Your task to perform on an android device: open app "Lyft - Rideshare, Bikes, Scooters & Transit" (install if not already installed) Image 0: 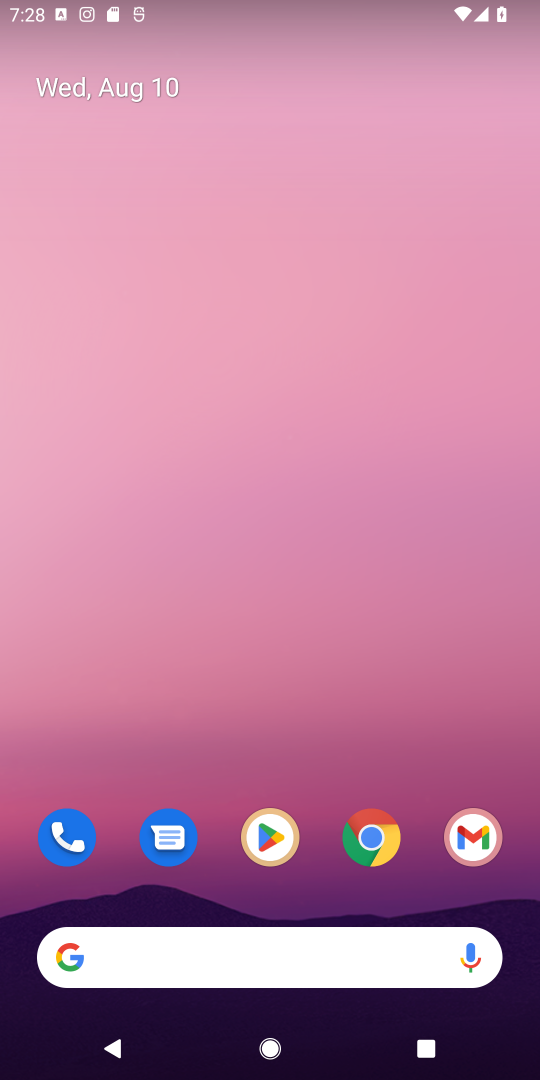
Step 0: press home button
Your task to perform on an android device: open app "Lyft - Rideshare, Bikes, Scooters & Transit" (install if not already installed) Image 1: 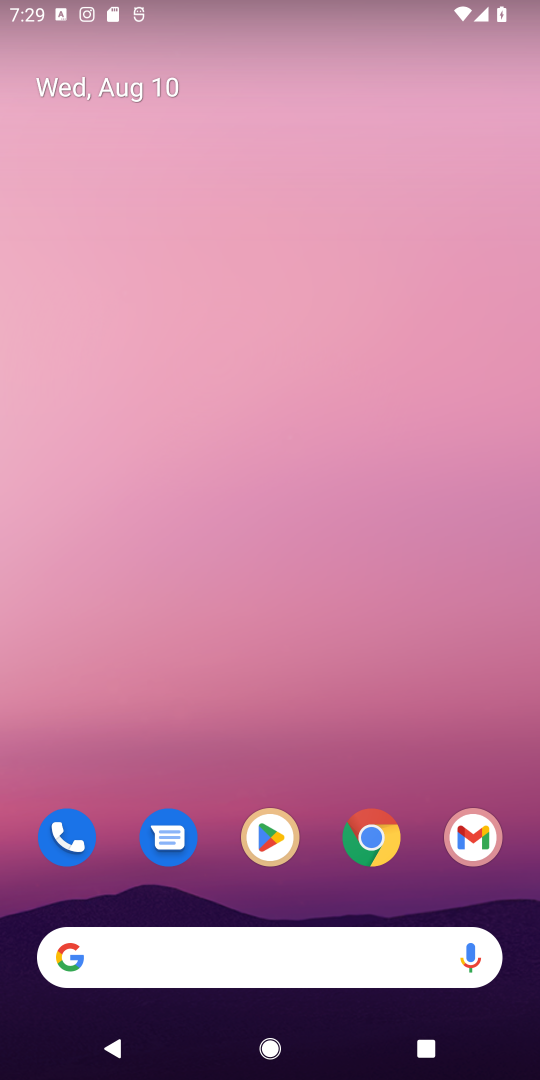
Step 1: click (270, 841)
Your task to perform on an android device: open app "Lyft - Rideshare, Bikes, Scooters & Transit" (install if not already installed) Image 2: 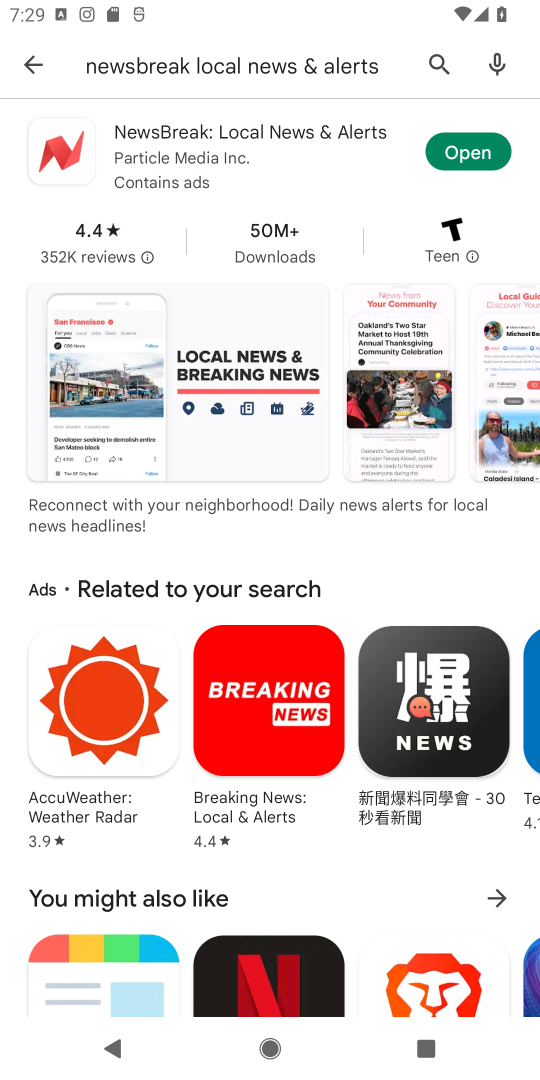
Step 2: click (432, 58)
Your task to perform on an android device: open app "Lyft - Rideshare, Bikes, Scooters & Transit" (install if not already installed) Image 3: 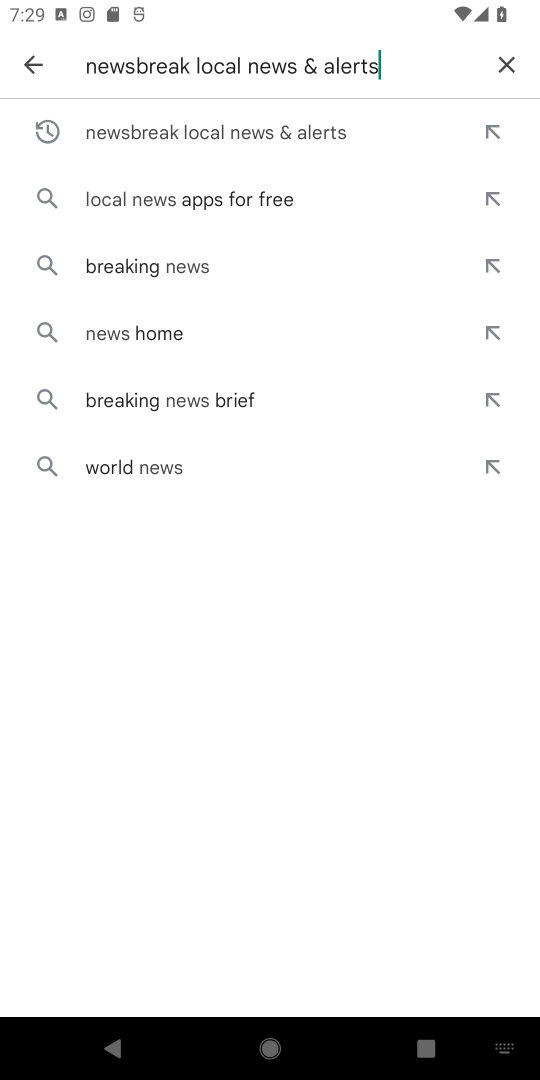
Step 3: click (500, 50)
Your task to perform on an android device: open app "Lyft - Rideshare, Bikes, Scooters & Transit" (install if not already installed) Image 4: 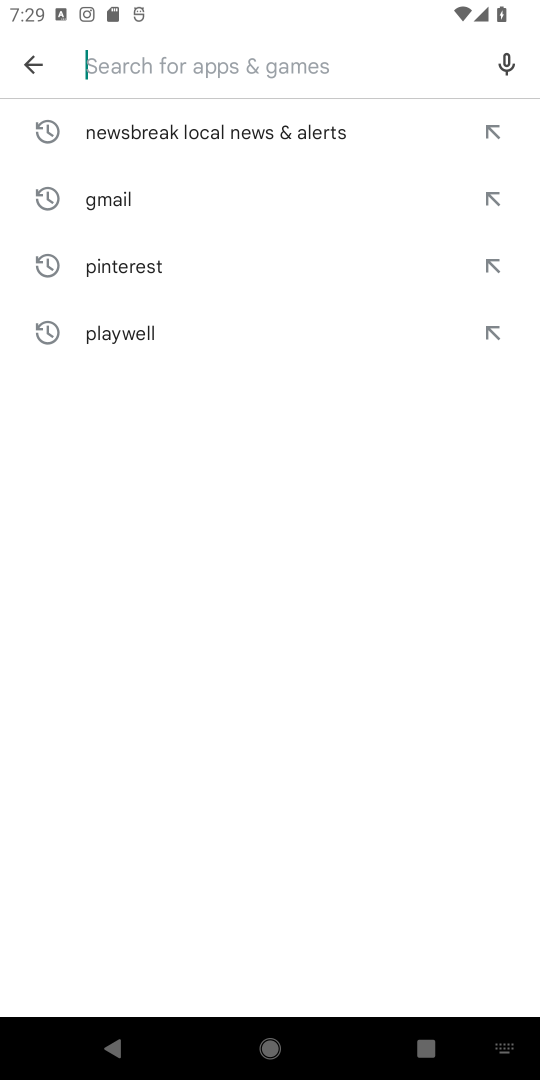
Step 4: type "Lyft - Rideshare, Bikes, Scooters & Transit"
Your task to perform on an android device: open app "Lyft - Rideshare, Bikes, Scooters & Transit" (install if not already installed) Image 5: 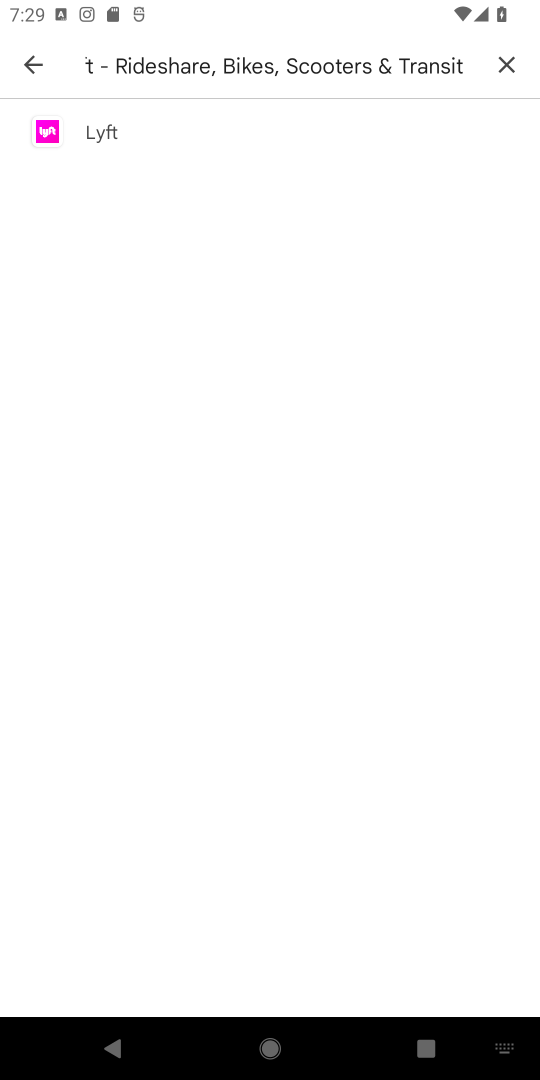
Step 5: click (123, 132)
Your task to perform on an android device: open app "Lyft - Rideshare, Bikes, Scooters & Transit" (install if not already installed) Image 6: 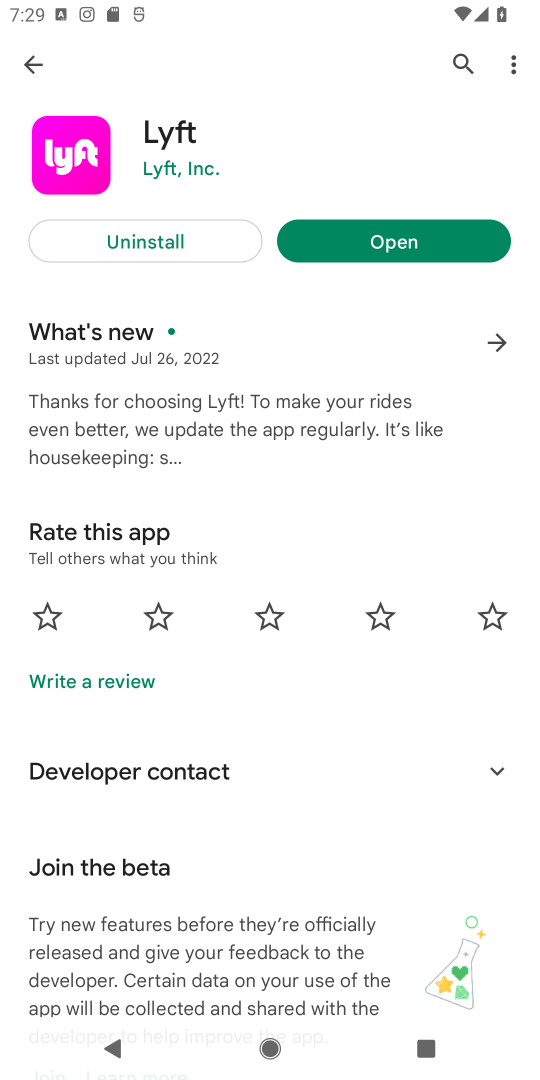
Step 6: click (427, 240)
Your task to perform on an android device: open app "Lyft - Rideshare, Bikes, Scooters & Transit" (install if not already installed) Image 7: 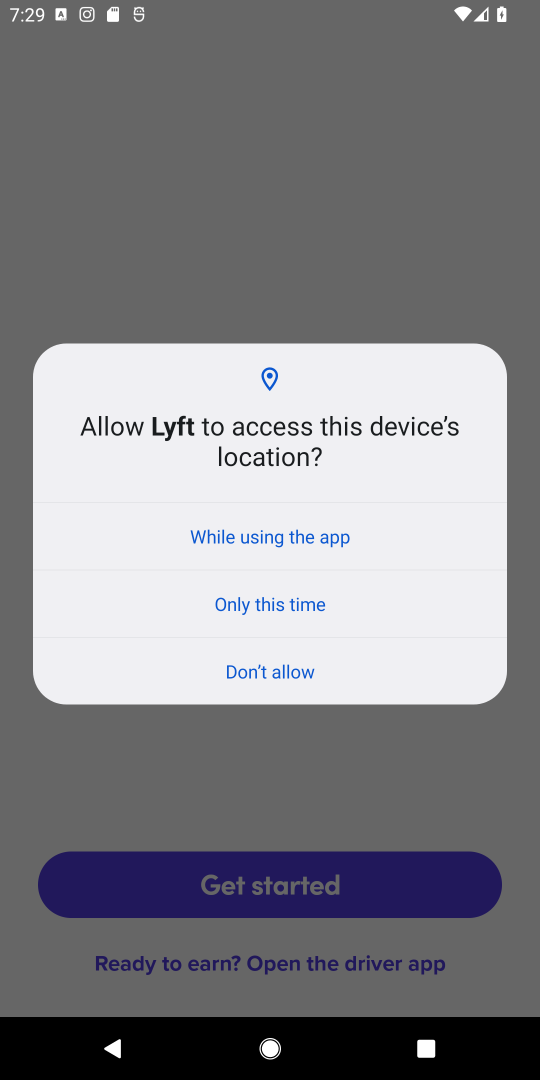
Step 7: task complete